Your task to perform on an android device: Open Google Chrome Image 0: 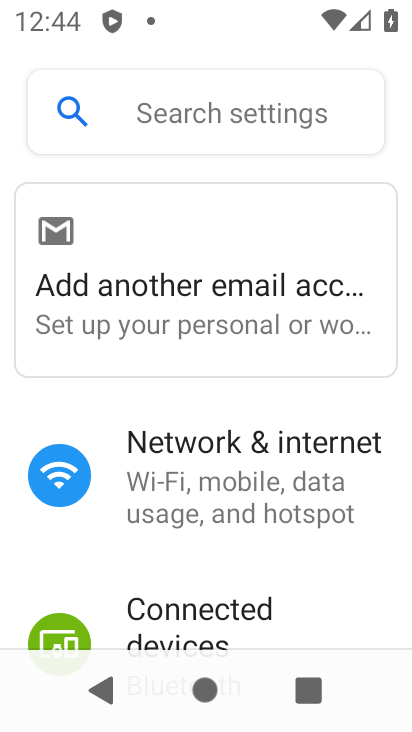
Step 0: press home button
Your task to perform on an android device: Open Google Chrome Image 1: 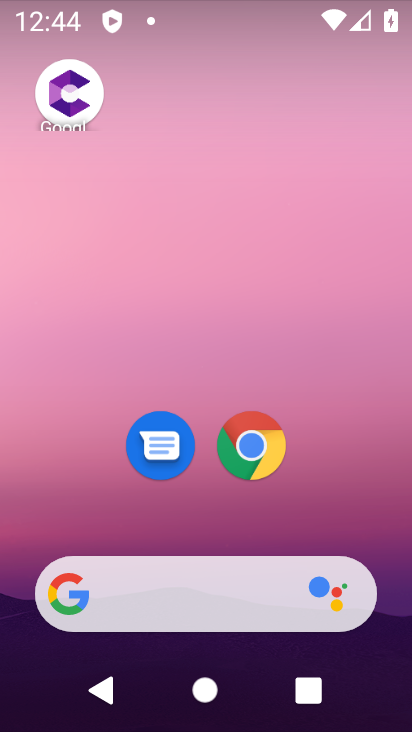
Step 1: click (260, 455)
Your task to perform on an android device: Open Google Chrome Image 2: 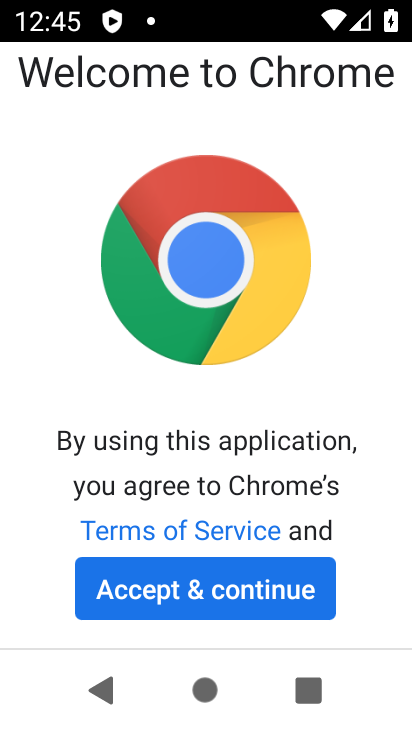
Step 2: click (236, 587)
Your task to perform on an android device: Open Google Chrome Image 3: 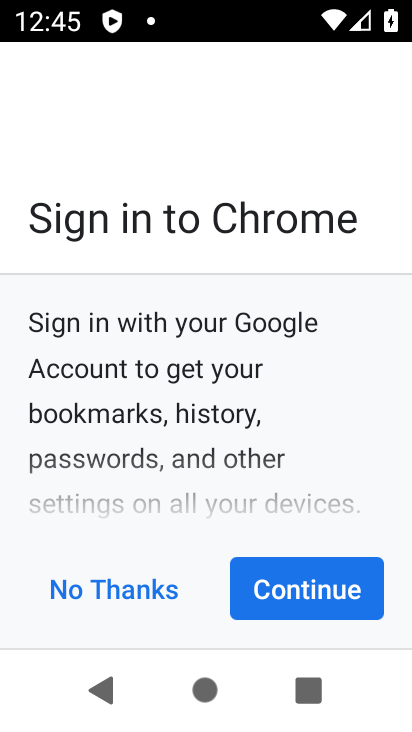
Step 3: click (236, 587)
Your task to perform on an android device: Open Google Chrome Image 4: 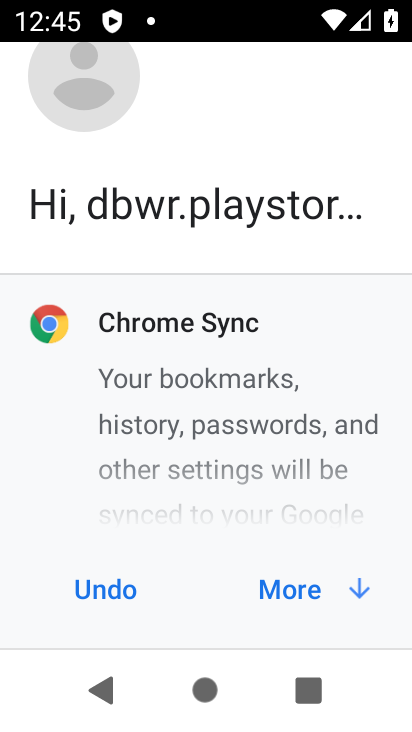
Step 4: click (316, 596)
Your task to perform on an android device: Open Google Chrome Image 5: 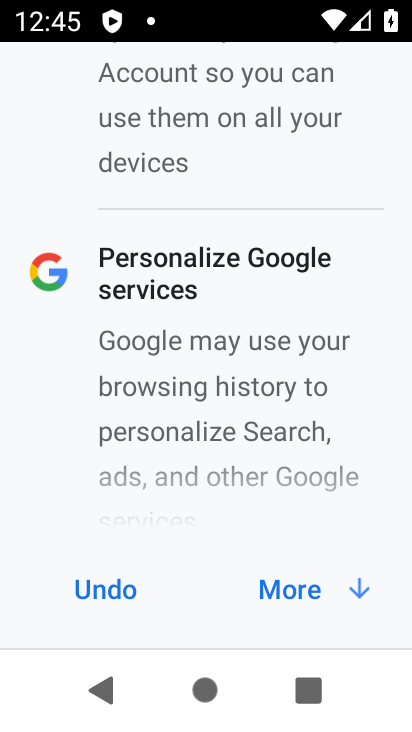
Step 5: click (316, 596)
Your task to perform on an android device: Open Google Chrome Image 6: 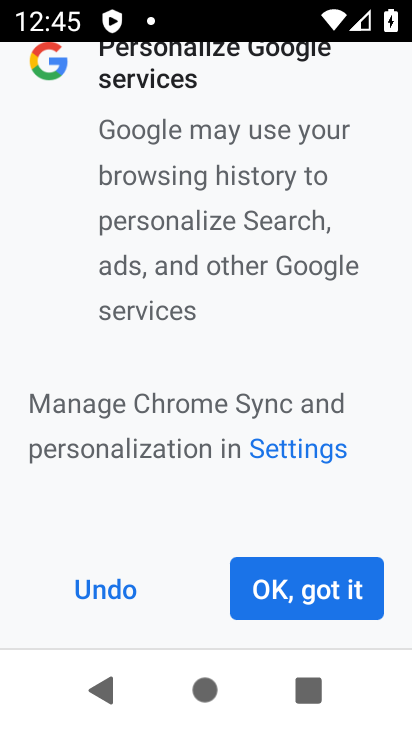
Step 6: click (316, 596)
Your task to perform on an android device: Open Google Chrome Image 7: 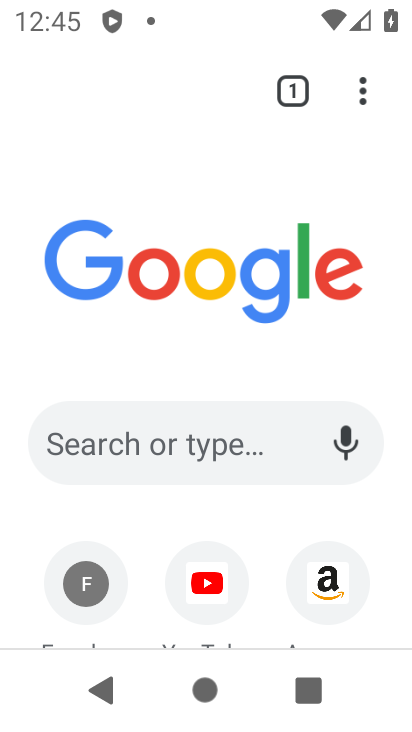
Step 7: task complete